Your task to perform on an android device: Go to calendar. Show me events next week Image 0: 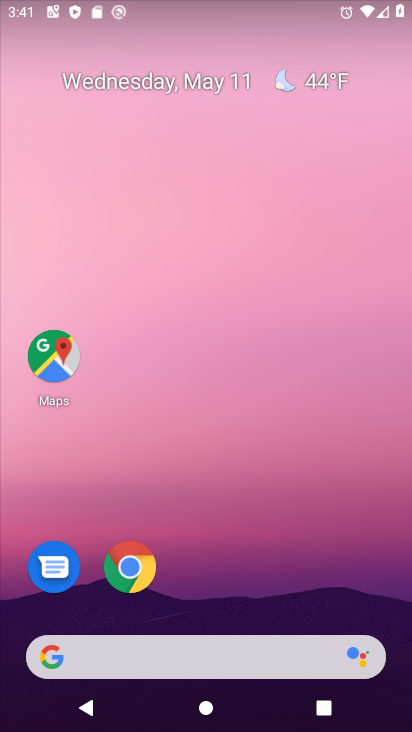
Step 0: drag from (255, 565) to (228, 71)
Your task to perform on an android device: Go to calendar. Show me events next week Image 1: 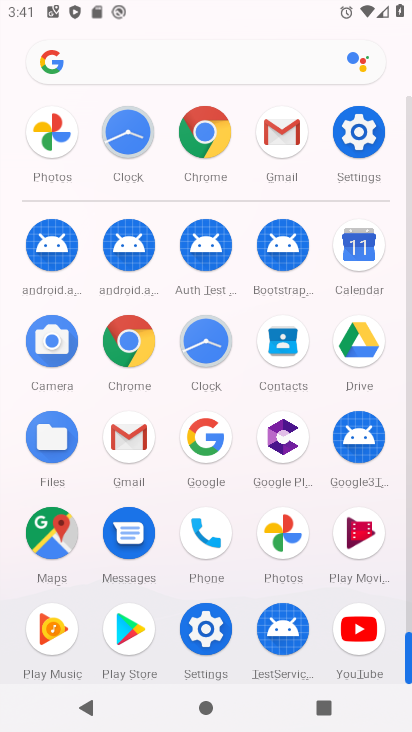
Step 1: drag from (21, 573) to (29, 220)
Your task to perform on an android device: Go to calendar. Show me events next week Image 2: 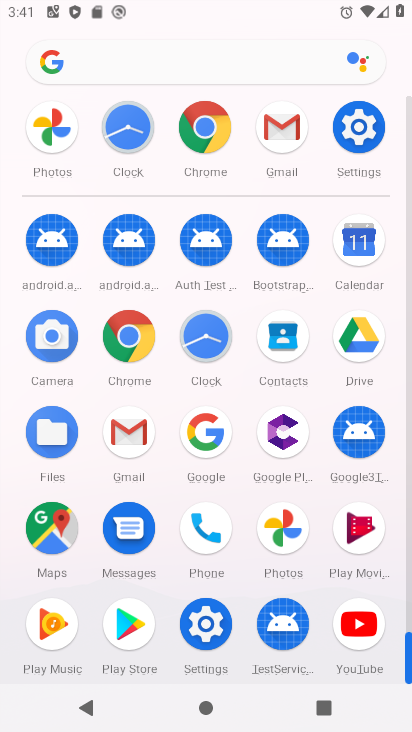
Step 2: click (358, 239)
Your task to perform on an android device: Go to calendar. Show me events next week Image 3: 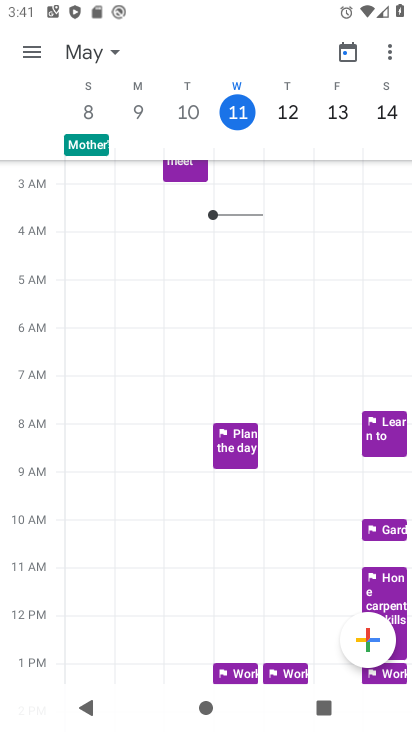
Step 3: click (76, 50)
Your task to perform on an android device: Go to calendar. Show me events next week Image 4: 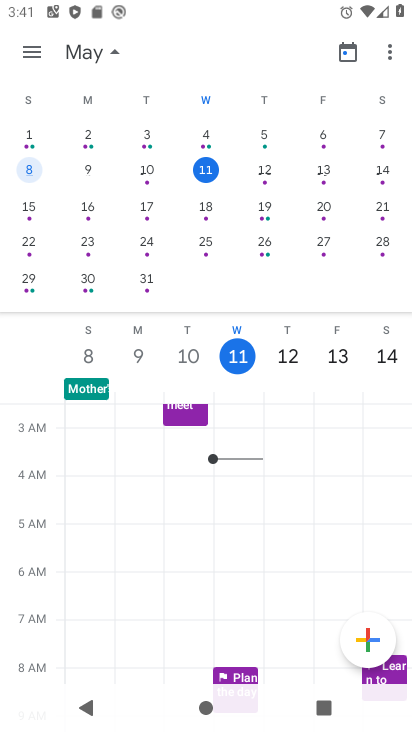
Step 4: drag from (354, 207) to (0, 226)
Your task to perform on an android device: Go to calendar. Show me events next week Image 5: 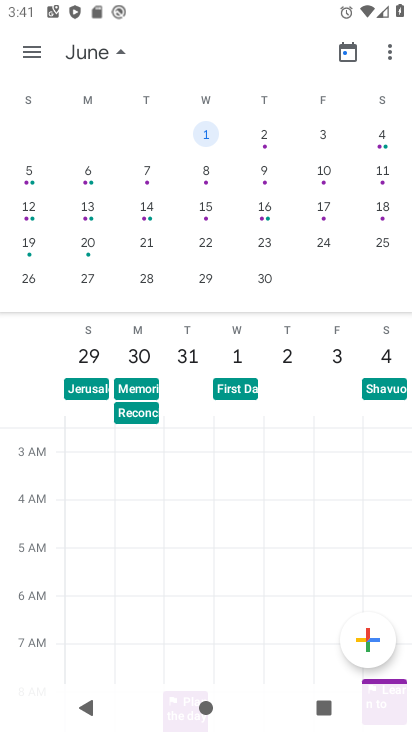
Step 5: drag from (15, 221) to (344, 221)
Your task to perform on an android device: Go to calendar. Show me events next week Image 6: 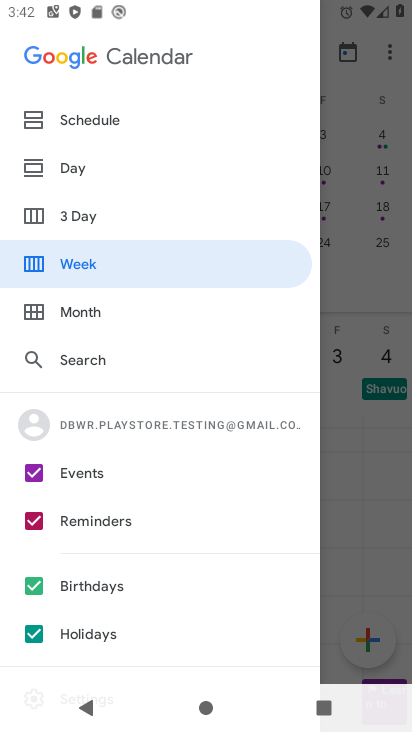
Step 6: click (95, 265)
Your task to perform on an android device: Go to calendar. Show me events next week Image 7: 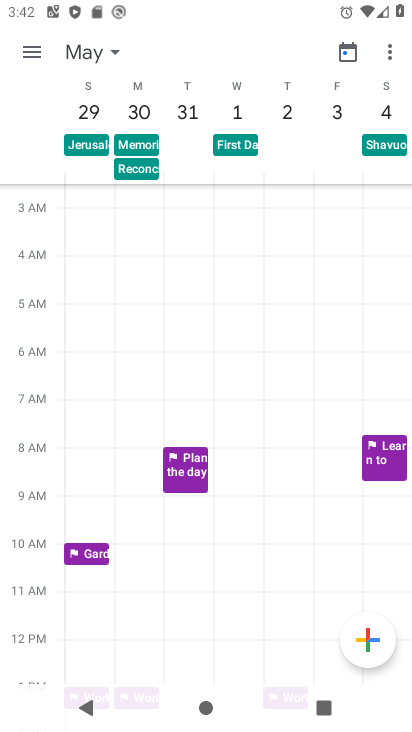
Step 7: task complete